Your task to perform on an android device: Search for seafood restaurants on Google Maps Image 0: 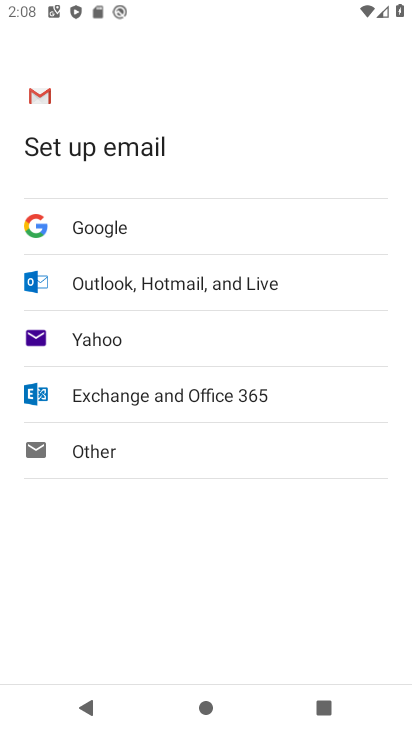
Step 0: press home button
Your task to perform on an android device: Search for seafood restaurants on Google Maps Image 1: 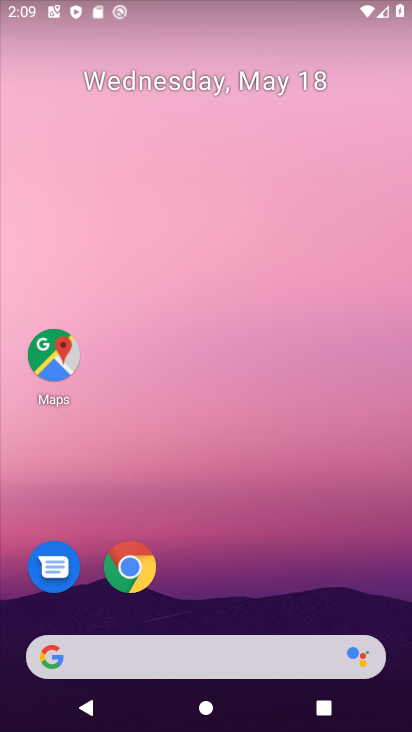
Step 1: click (58, 352)
Your task to perform on an android device: Search for seafood restaurants on Google Maps Image 2: 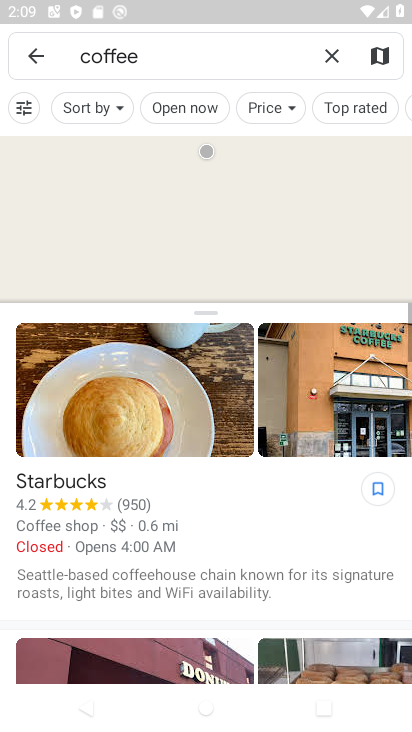
Step 2: click (201, 58)
Your task to perform on an android device: Search for seafood restaurants on Google Maps Image 3: 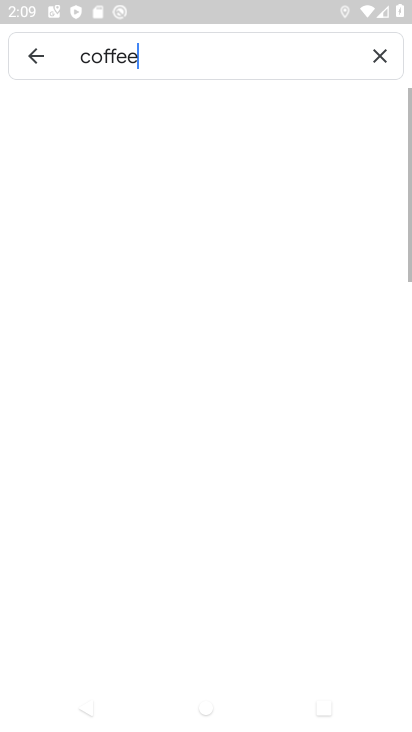
Step 3: click (379, 53)
Your task to perform on an android device: Search for seafood restaurants on Google Maps Image 4: 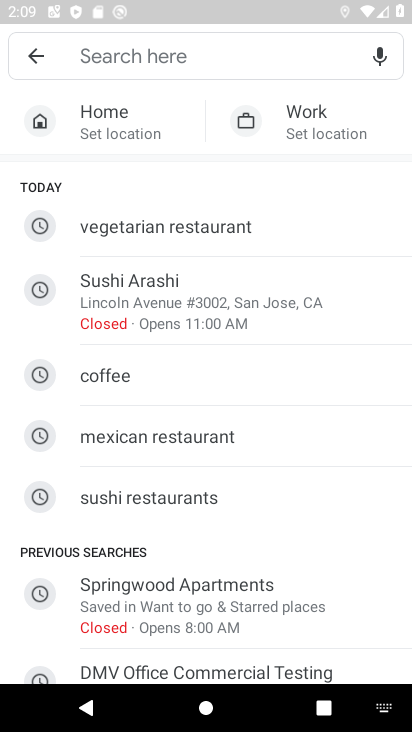
Step 4: type "seafood restaurants"
Your task to perform on an android device: Search for seafood restaurants on Google Maps Image 5: 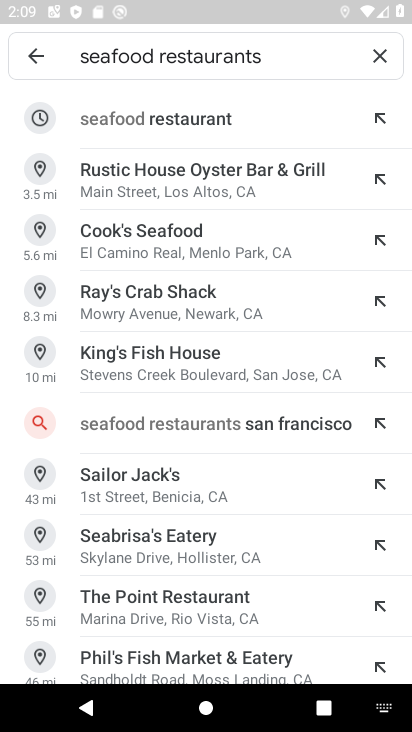
Step 5: press enter
Your task to perform on an android device: Search for seafood restaurants on Google Maps Image 6: 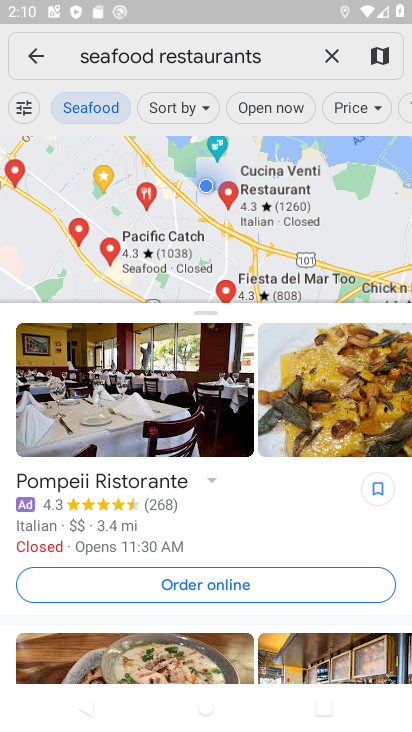
Step 6: task complete